Your task to perform on an android device: change text size in settings app Image 0: 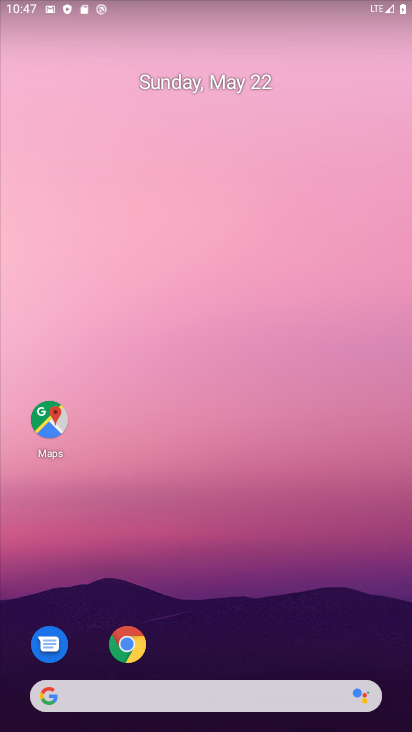
Step 0: drag from (215, 661) to (225, 303)
Your task to perform on an android device: change text size in settings app Image 1: 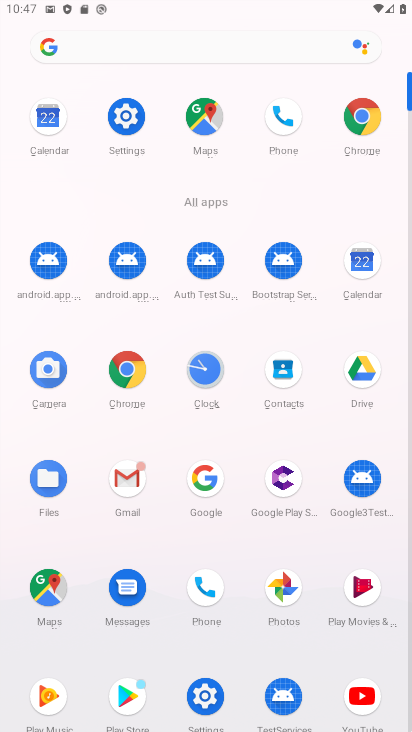
Step 1: click (119, 122)
Your task to perform on an android device: change text size in settings app Image 2: 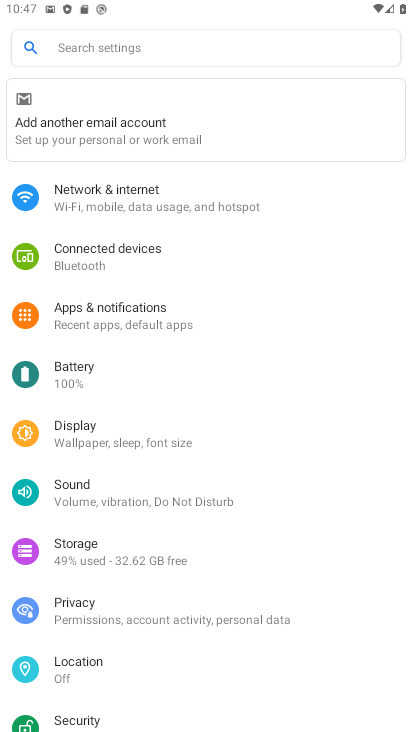
Step 2: click (111, 429)
Your task to perform on an android device: change text size in settings app Image 3: 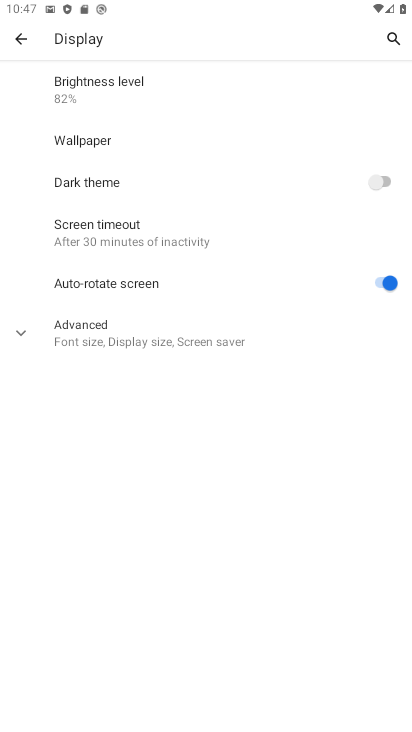
Step 3: click (76, 340)
Your task to perform on an android device: change text size in settings app Image 4: 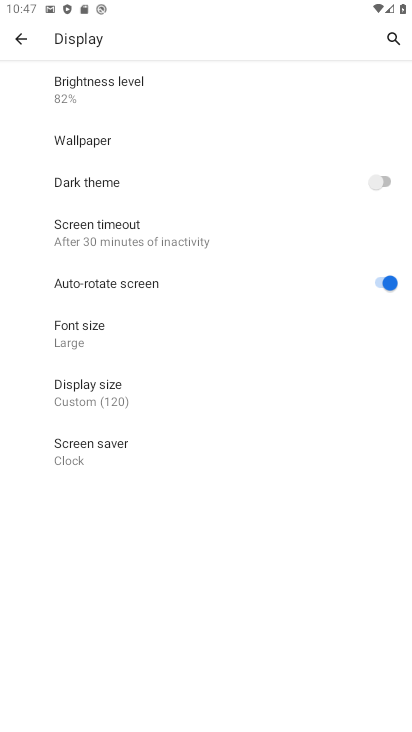
Step 4: click (99, 334)
Your task to perform on an android device: change text size in settings app Image 5: 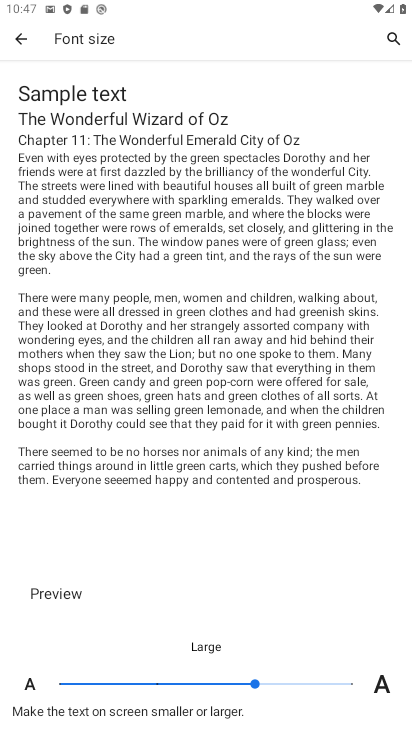
Step 5: click (68, 678)
Your task to perform on an android device: change text size in settings app Image 6: 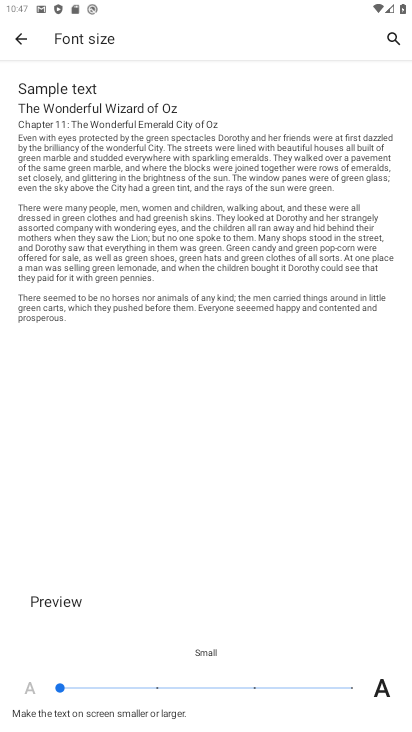
Step 6: task complete